Your task to perform on an android device: open a bookmark in the chrome app Image 0: 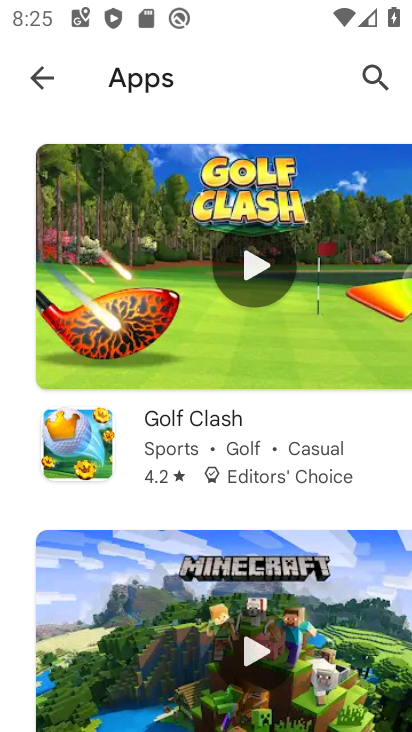
Step 0: press home button
Your task to perform on an android device: open a bookmark in the chrome app Image 1: 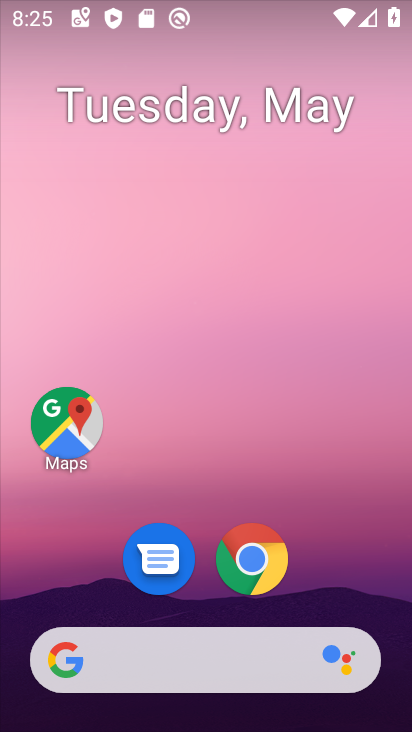
Step 1: click (242, 576)
Your task to perform on an android device: open a bookmark in the chrome app Image 2: 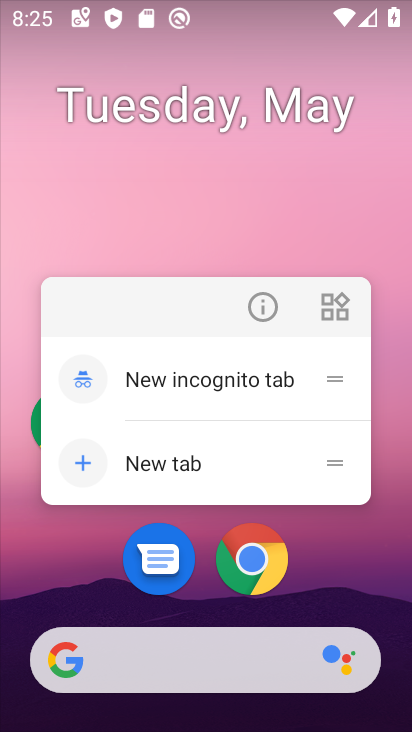
Step 2: click (242, 576)
Your task to perform on an android device: open a bookmark in the chrome app Image 3: 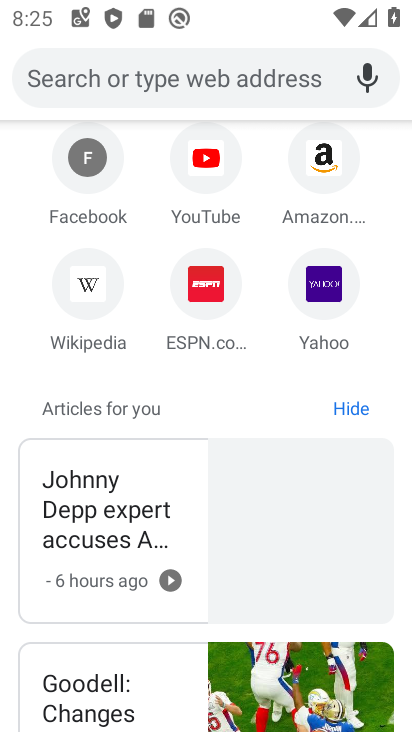
Step 3: drag from (313, 159) to (298, 599)
Your task to perform on an android device: open a bookmark in the chrome app Image 4: 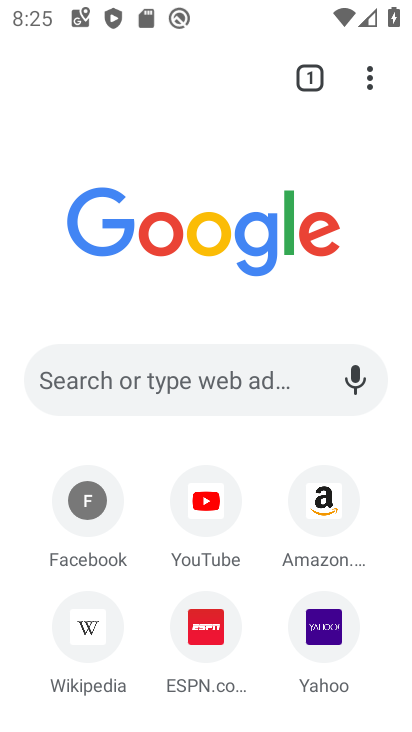
Step 4: drag from (365, 89) to (149, 284)
Your task to perform on an android device: open a bookmark in the chrome app Image 5: 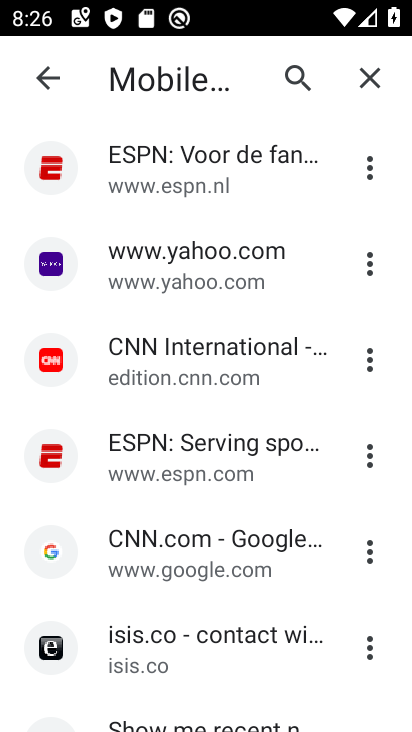
Step 5: click (242, 361)
Your task to perform on an android device: open a bookmark in the chrome app Image 6: 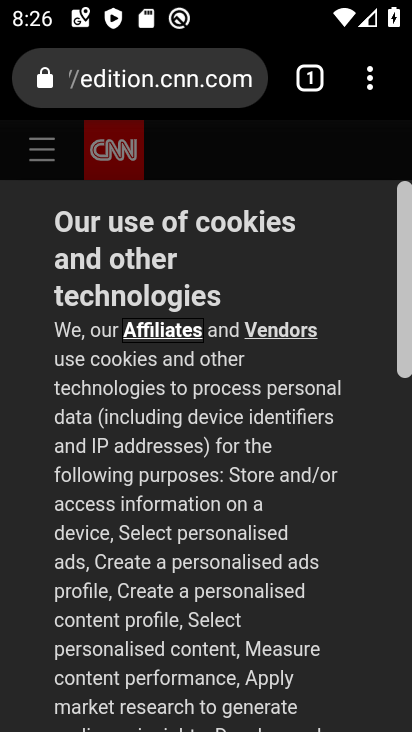
Step 6: task complete